Your task to perform on an android device: Do I have any events this weekend? Image 0: 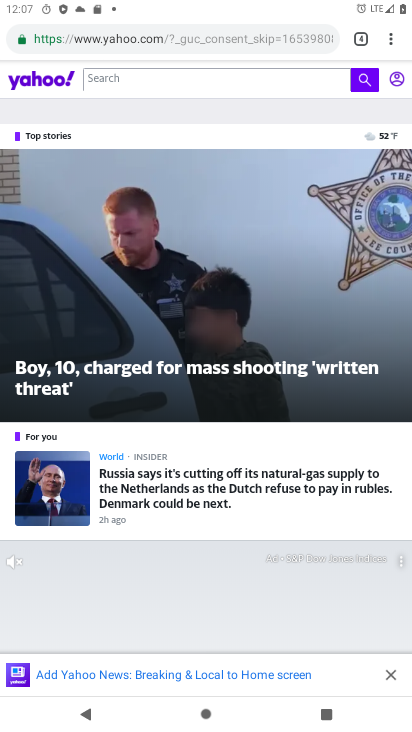
Step 0: press home button
Your task to perform on an android device: Do I have any events this weekend? Image 1: 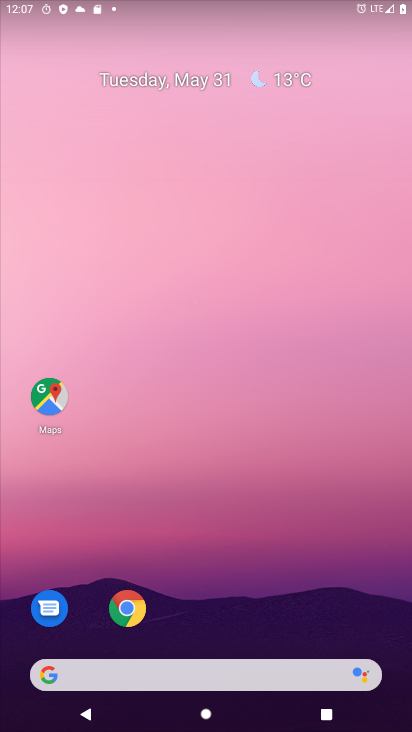
Step 1: drag from (249, 633) to (198, 10)
Your task to perform on an android device: Do I have any events this weekend? Image 2: 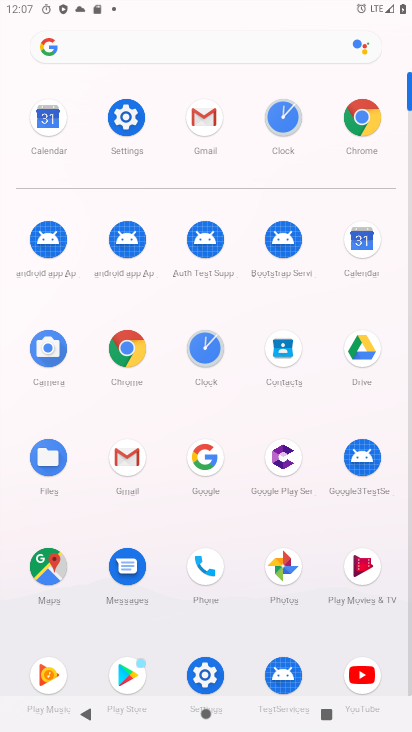
Step 2: click (47, 125)
Your task to perform on an android device: Do I have any events this weekend? Image 3: 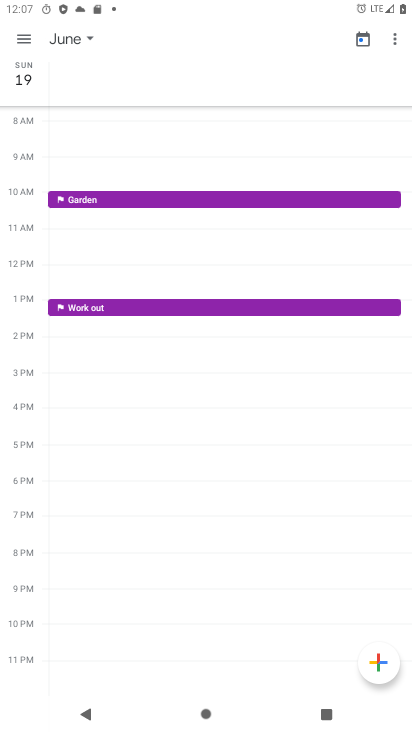
Step 3: click (17, 38)
Your task to perform on an android device: Do I have any events this weekend? Image 4: 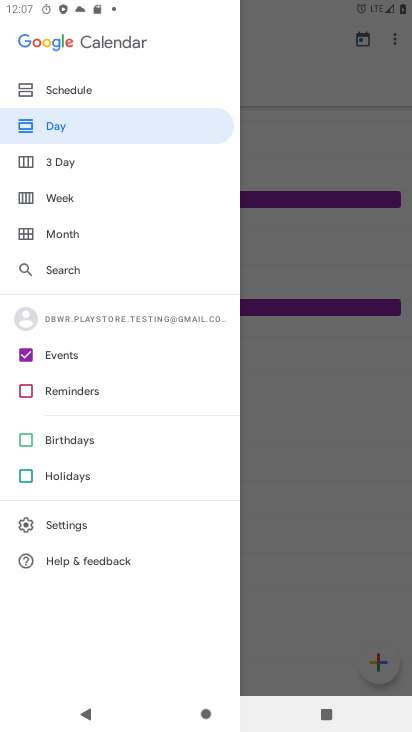
Step 4: click (45, 124)
Your task to perform on an android device: Do I have any events this weekend? Image 5: 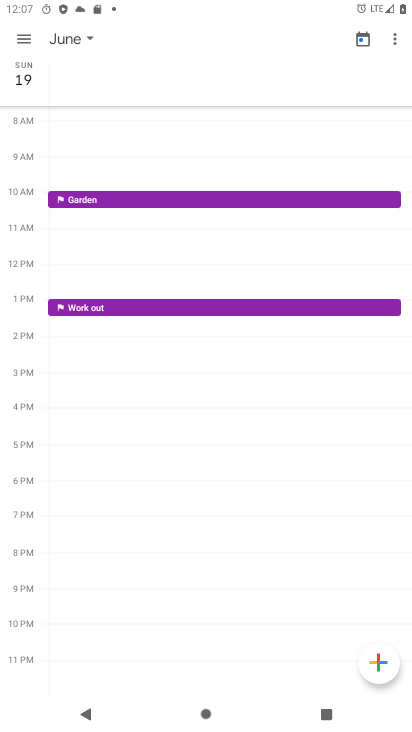
Step 5: click (367, 34)
Your task to perform on an android device: Do I have any events this weekend? Image 6: 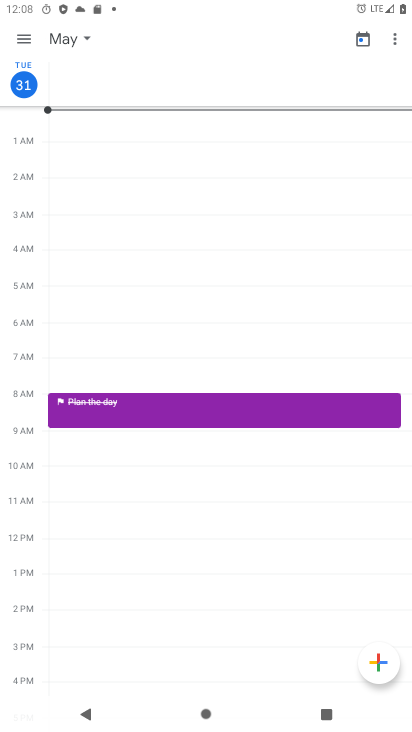
Step 6: click (29, 44)
Your task to perform on an android device: Do I have any events this weekend? Image 7: 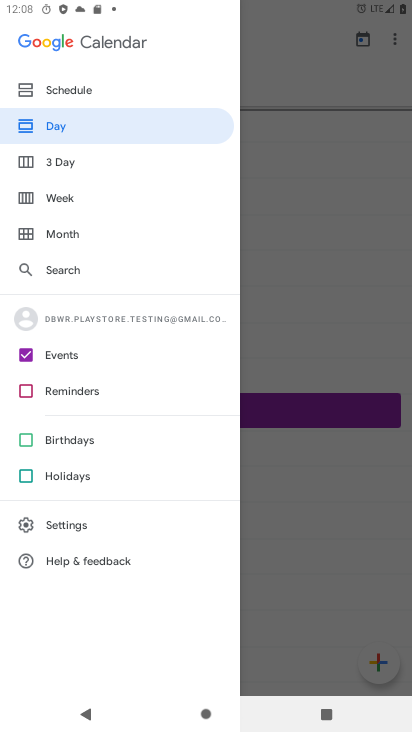
Step 7: click (50, 130)
Your task to perform on an android device: Do I have any events this weekend? Image 8: 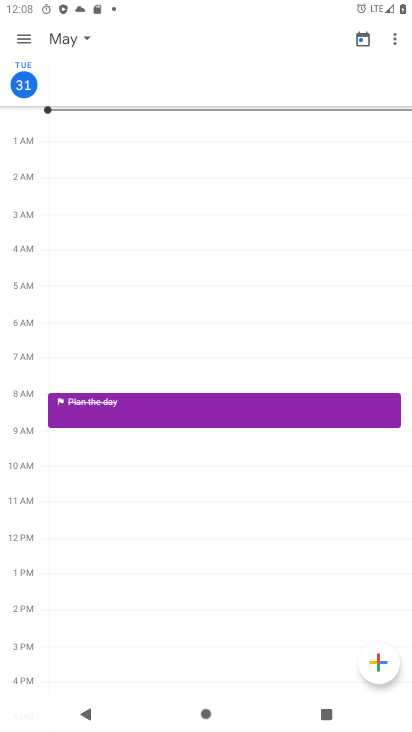
Step 8: click (81, 42)
Your task to perform on an android device: Do I have any events this weekend? Image 9: 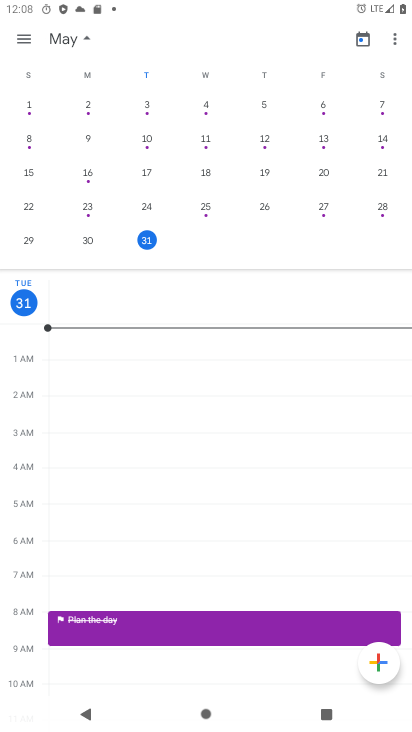
Step 9: drag from (321, 230) to (2, 153)
Your task to perform on an android device: Do I have any events this weekend? Image 10: 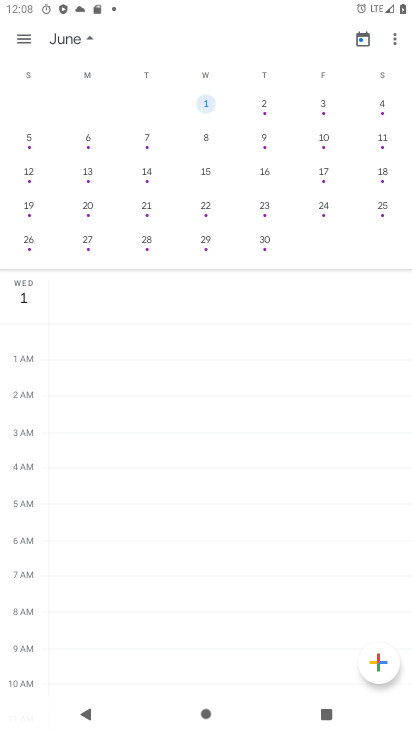
Step 10: click (381, 105)
Your task to perform on an android device: Do I have any events this weekend? Image 11: 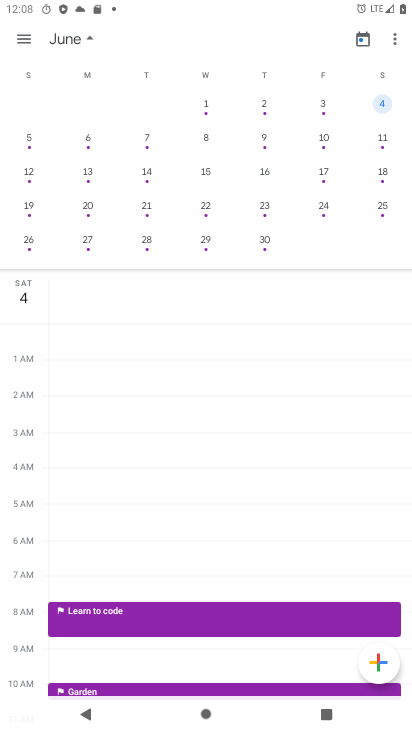
Step 11: task complete